Your task to perform on an android device: Go to notification settings Image 0: 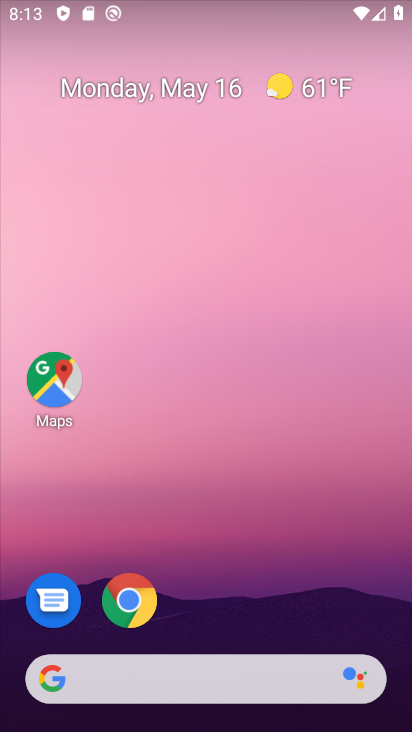
Step 0: drag from (274, 592) to (186, 63)
Your task to perform on an android device: Go to notification settings Image 1: 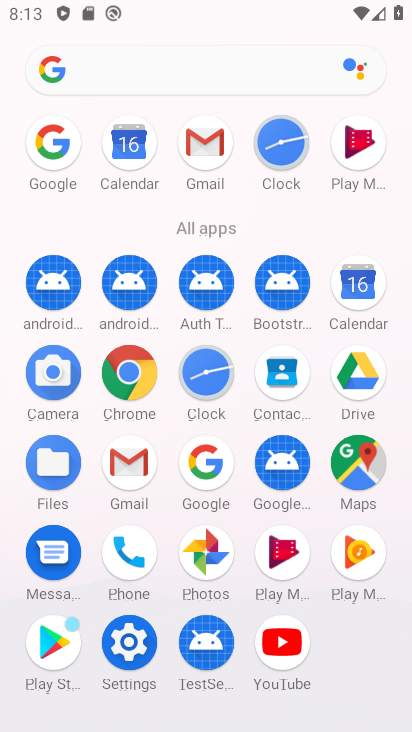
Step 1: click (129, 654)
Your task to perform on an android device: Go to notification settings Image 2: 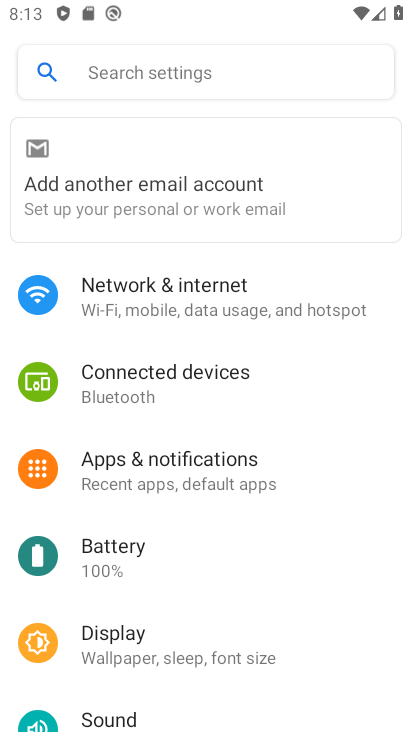
Step 2: click (191, 489)
Your task to perform on an android device: Go to notification settings Image 3: 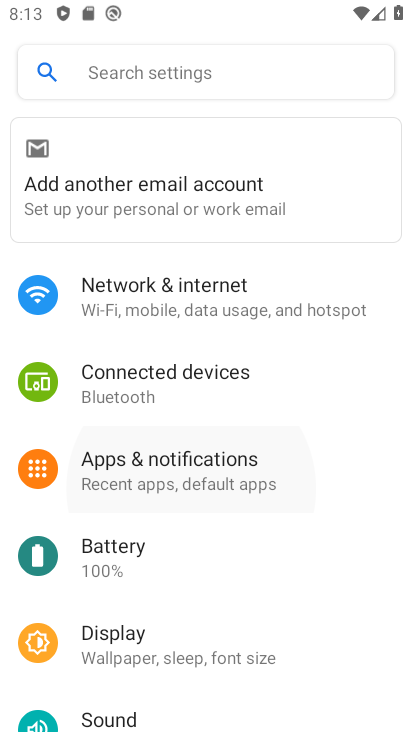
Step 3: click (191, 489)
Your task to perform on an android device: Go to notification settings Image 4: 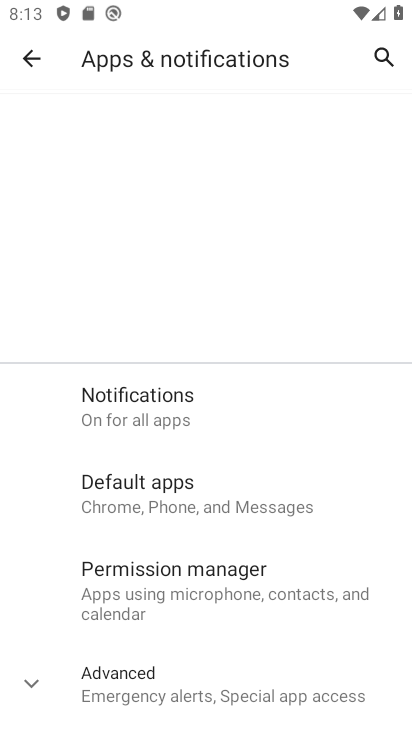
Step 4: click (142, 412)
Your task to perform on an android device: Go to notification settings Image 5: 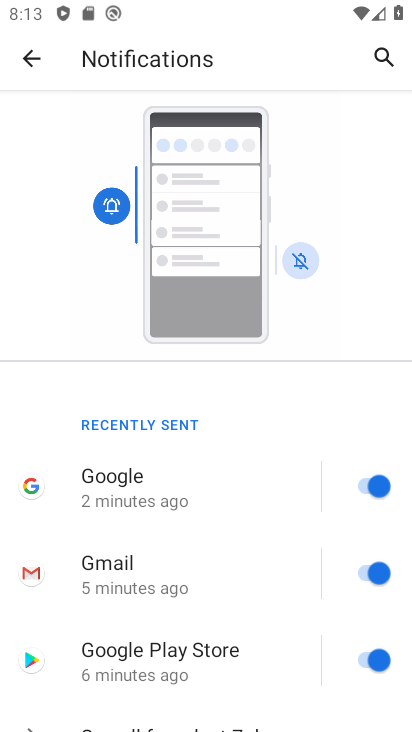
Step 5: task complete